Your task to perform on an android device: turn off data saver in the chrome app Image 0: 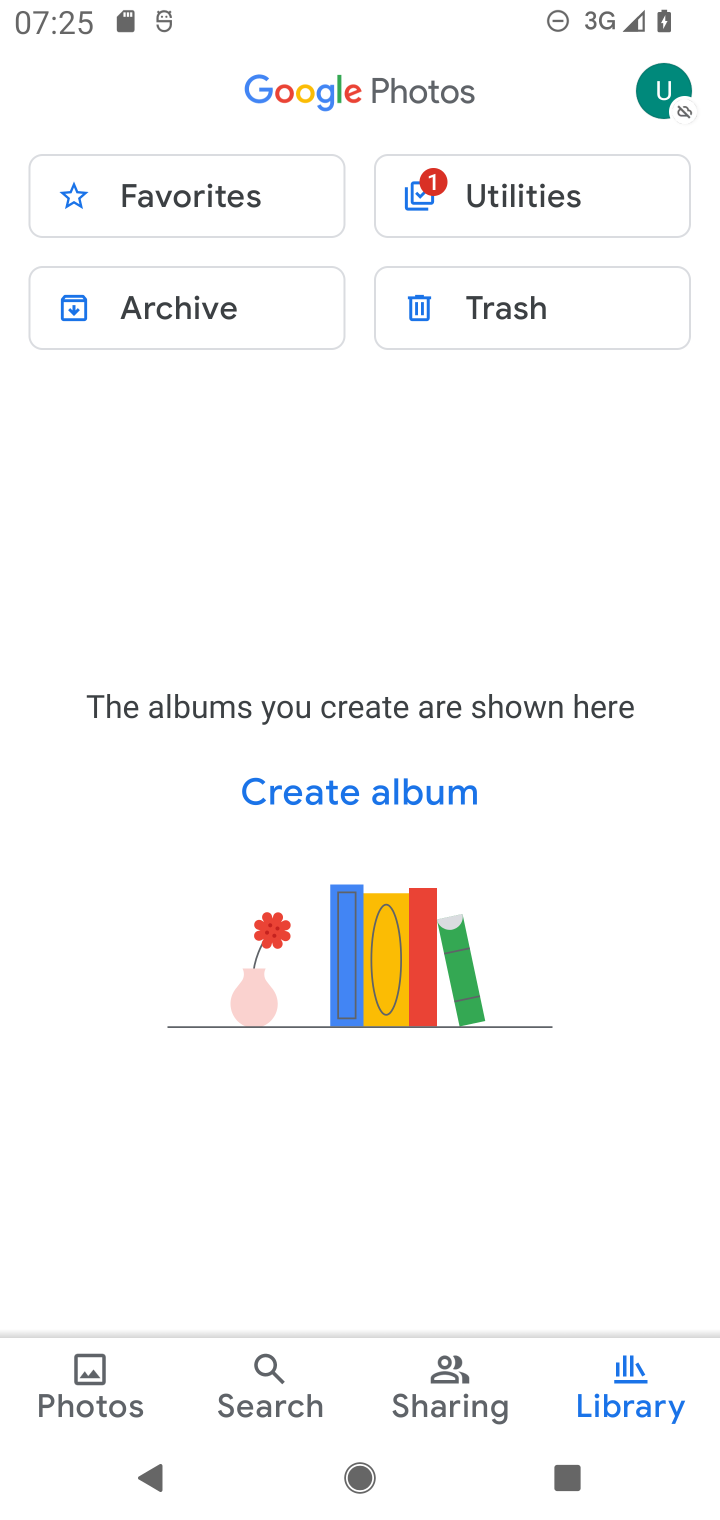
Step 0: press home button
Your task to perform on an android device: turn off data saver in the chrome app Image 1: 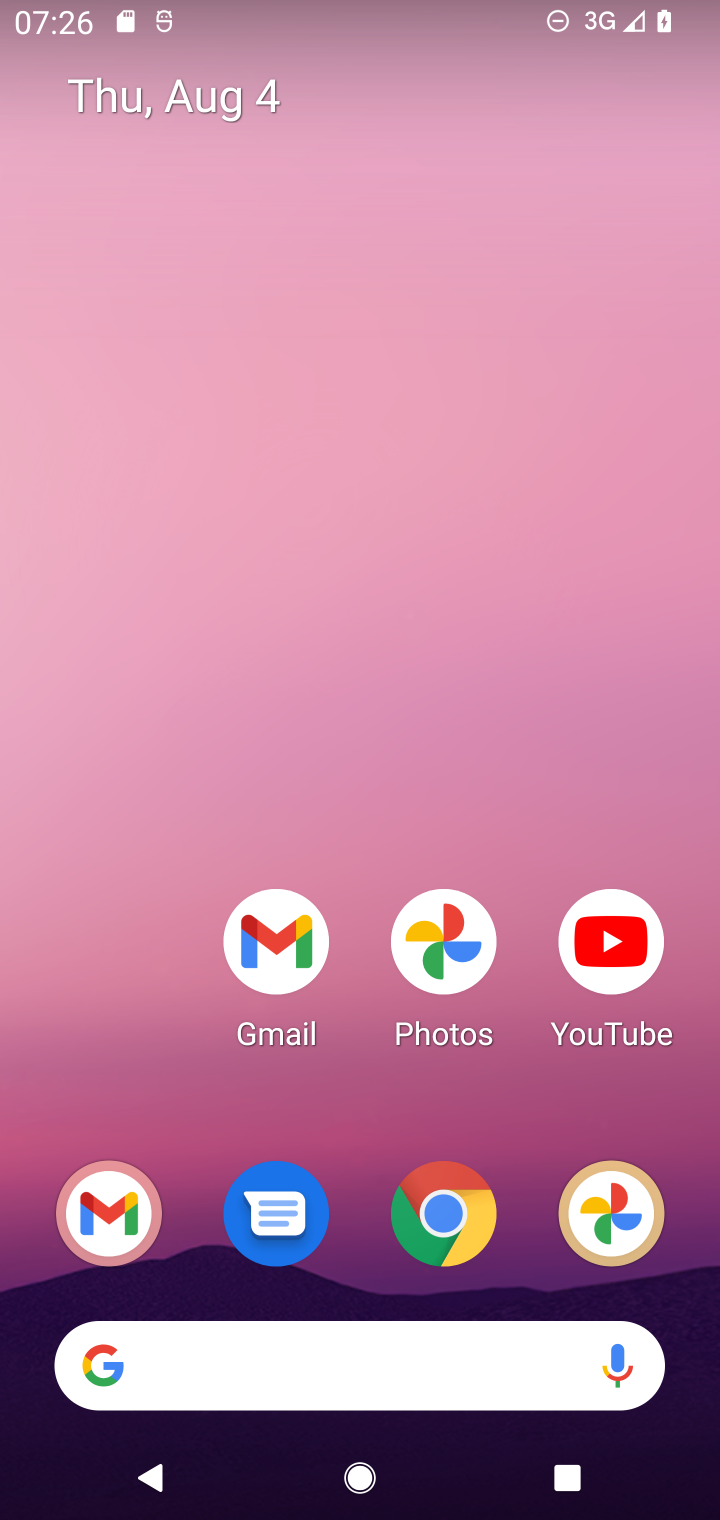
Step 1: drag from (144, 1107) to (120, 419)
Your task to perform on an android device: turn off data saver in the chrome app Image 2: 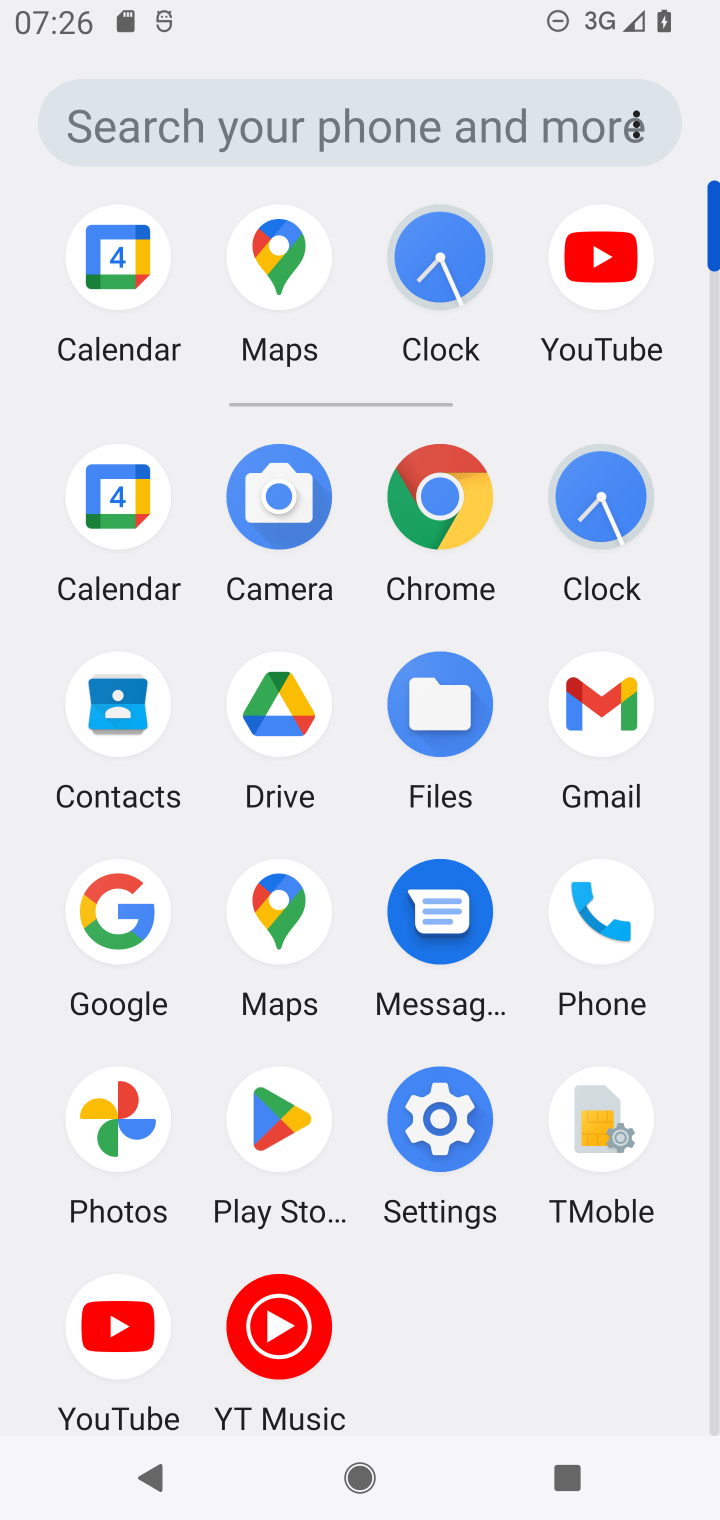
Step 2: click (465, 496)
Your task to perform on an android device: turn off data saver in the chrome app Image 3: 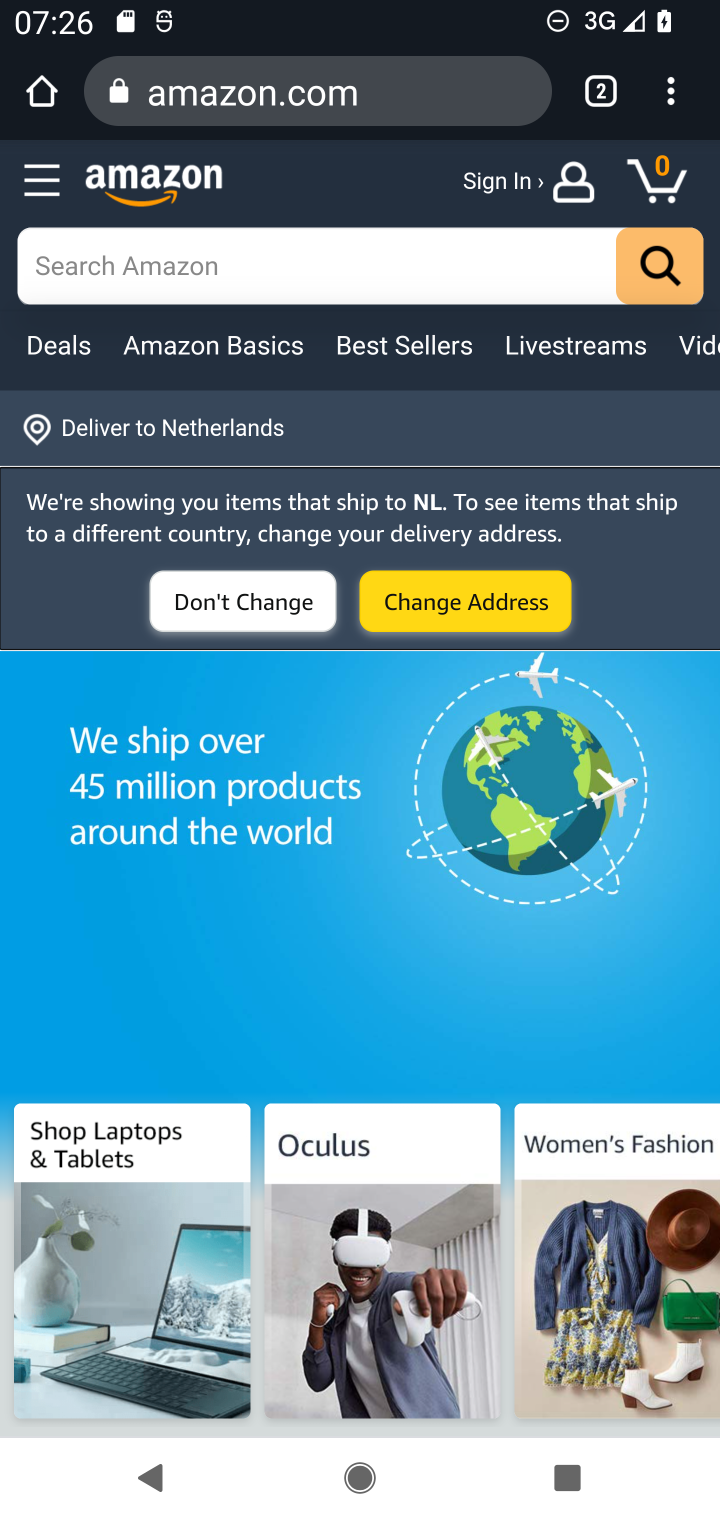
Step 3: click (676, 98)
Your task to perform on an android device: turn off data saver in the chrome app Image 4: 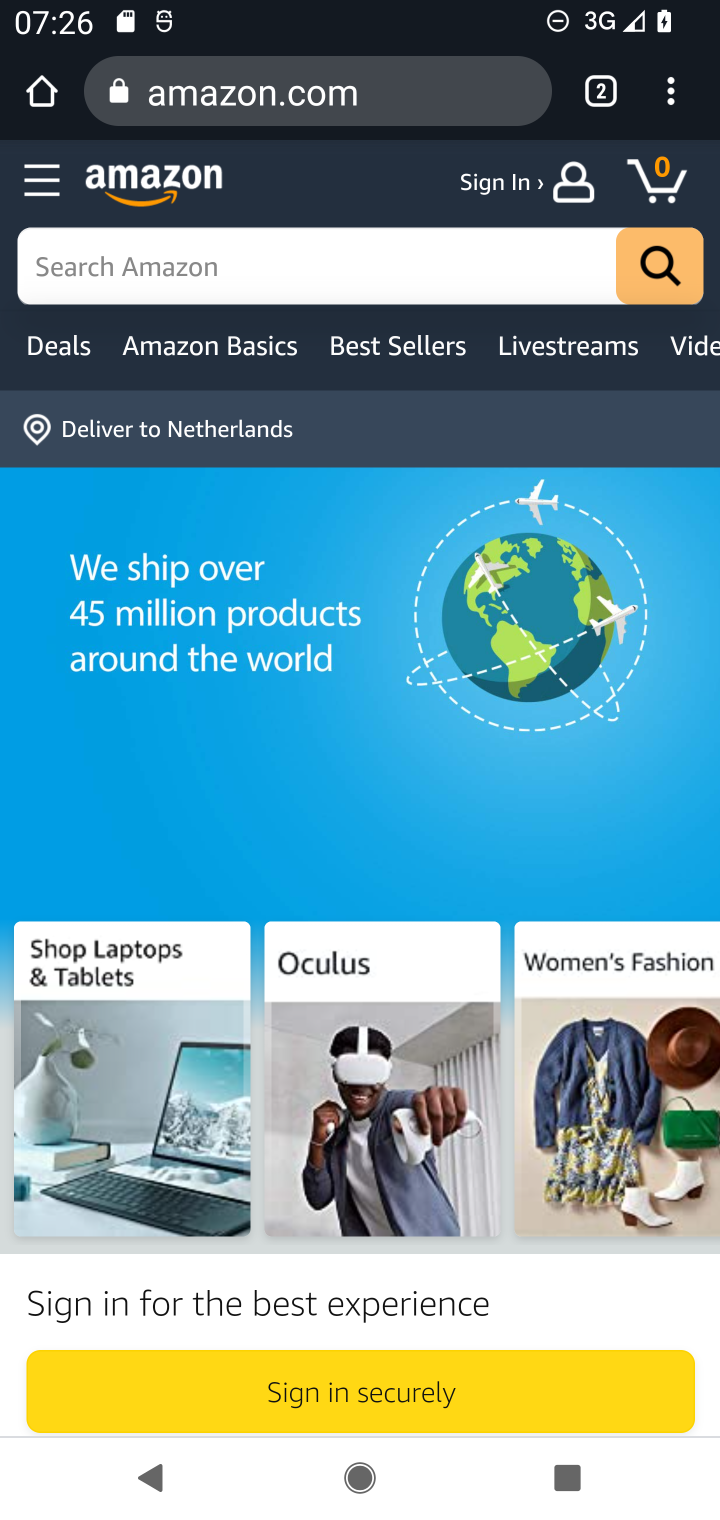
Step 4: click (671, 98)
Your task to perform on an android device: turn off data saver in the chrome app Image 5: 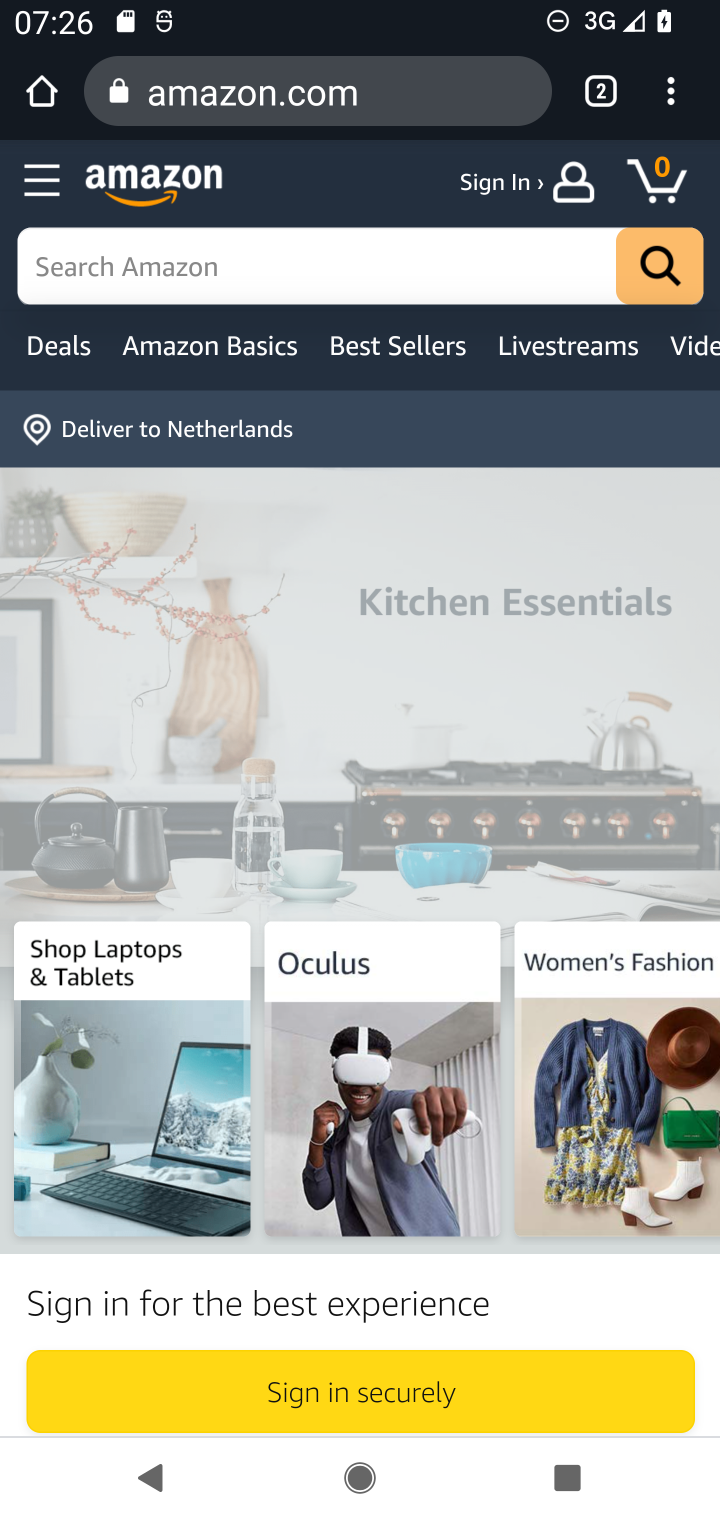
Step 5: click (672, 102)
Your task to perform on an android device: turn off data saver in the chrome app Image 6: 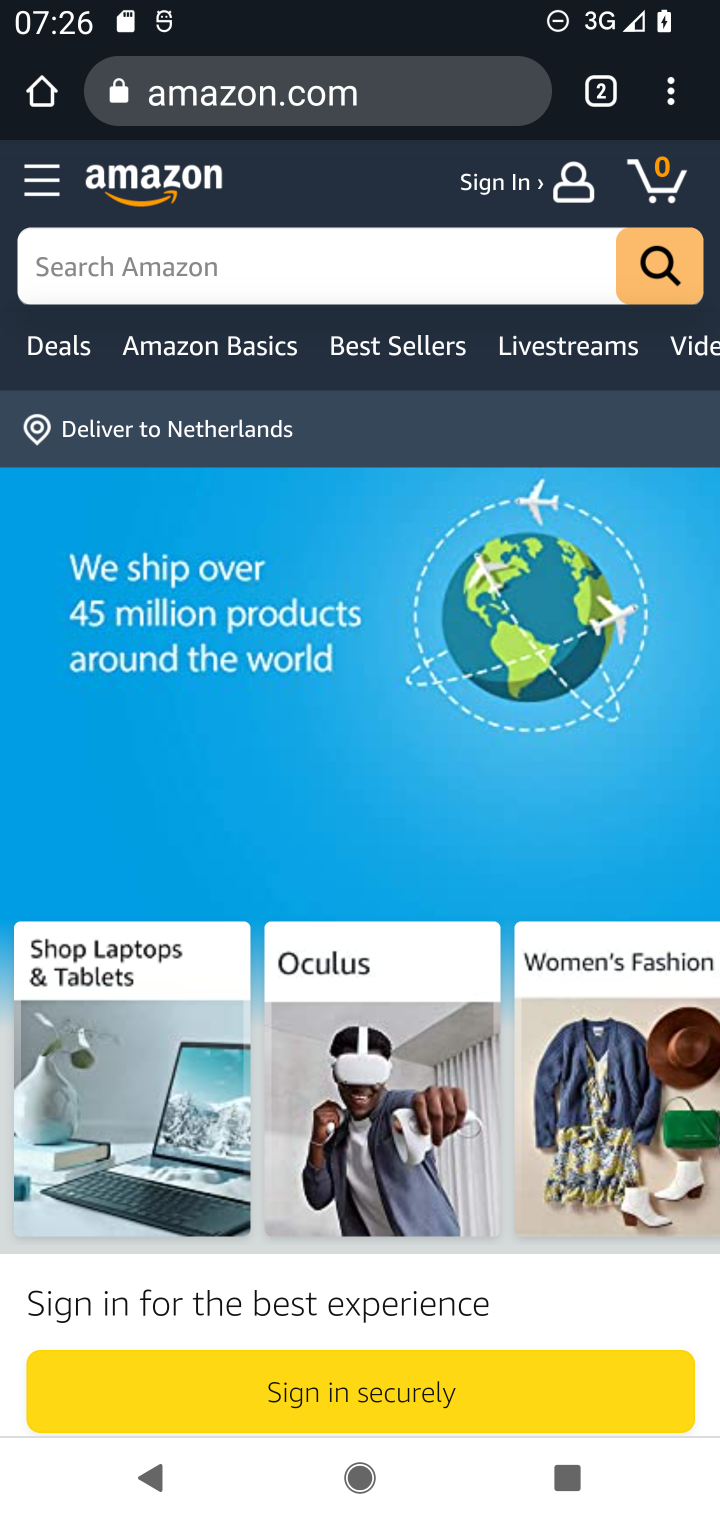
Step 6: click (675, 108)
Your task to perform on an android device: turn off data saver in the chrome app Image 7: 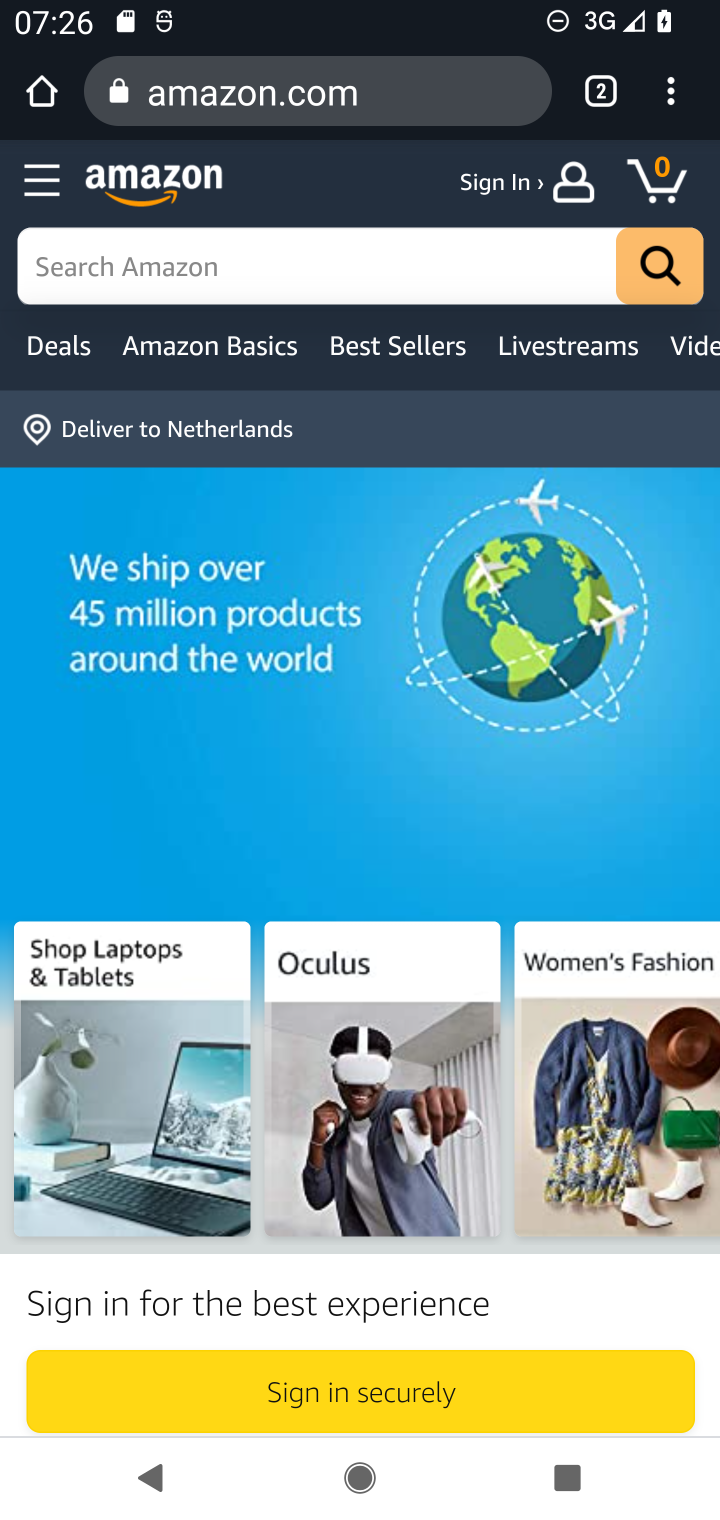
Step 7: task complete